Your task to perform on an android device: turn on improve location accuracy Image 0: 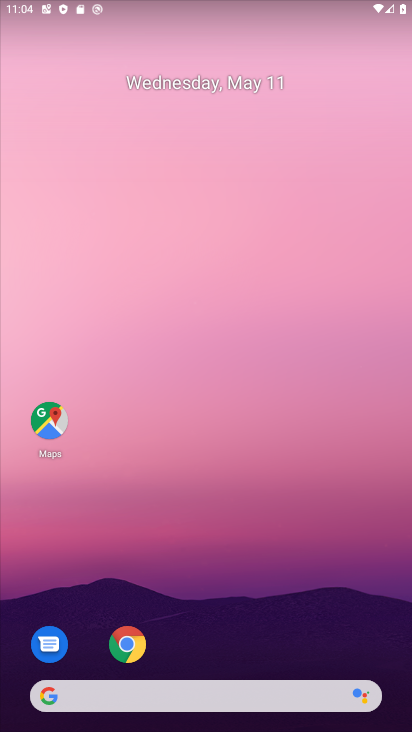
Step 0: drag from (269, 624) to (297, 73)
Your task to perform on an android device: turn on improve location accuracy Image 1: 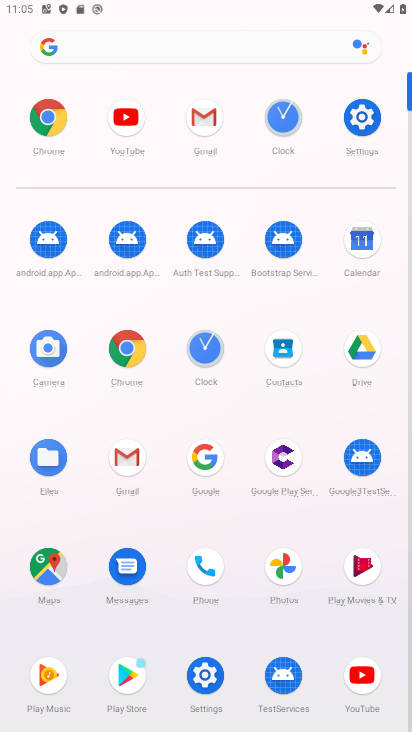
Step 1: click (372, 147)
Your task to perform on an android device: turn on improve location accuracy Image 2: 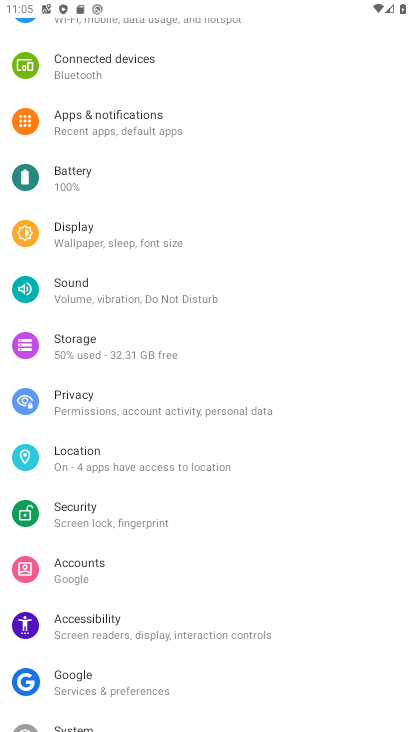
Step 2: click (248, 480)
Your task to perform on an android device: turn on improve location accuracy Image 3: 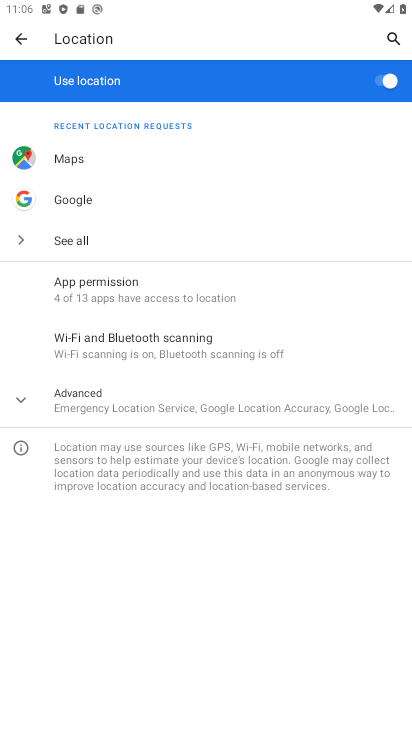
Step 3: click (47, 401)
Your task to perform on an android device: turn on improve location accuracy Image 4: 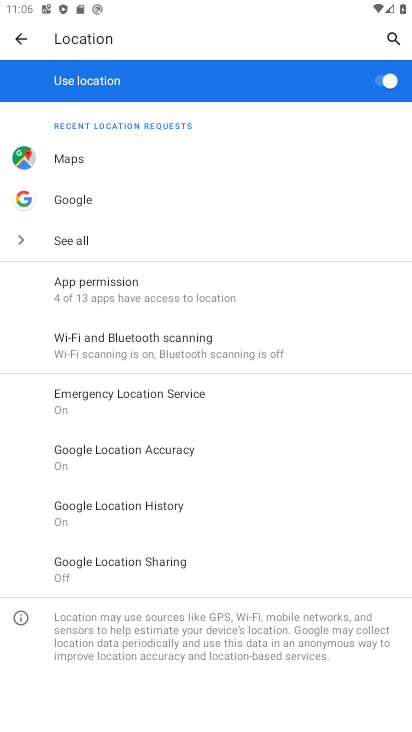
Step 4: click (155, 450)
Your task to perform on an android device: turn on improve location accuracy Image 5: 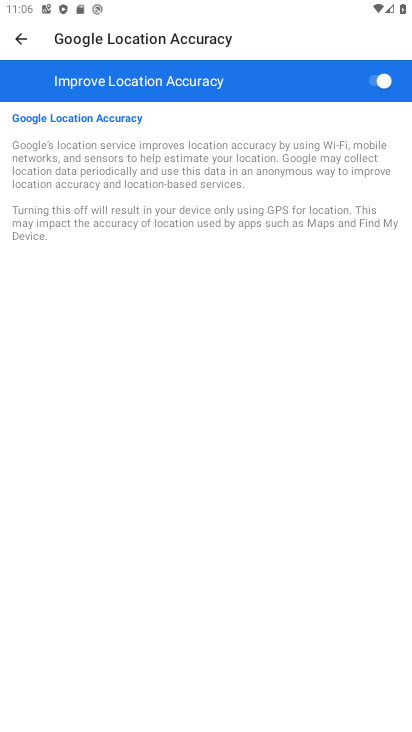
Step 5: task complete